Your task to perform on an android device: Search for Italian restaurants on Maps Image 0: 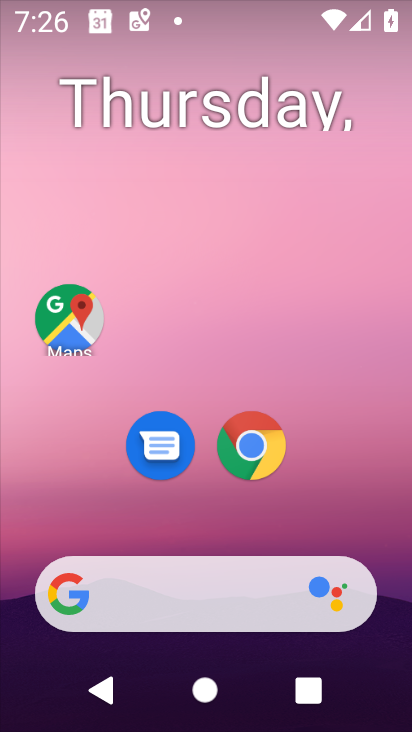
Step 0: drag from (379, 649) to (288, 85)
Your task to perform on an android device: Search for Italian restaurants on Maps Image 1: 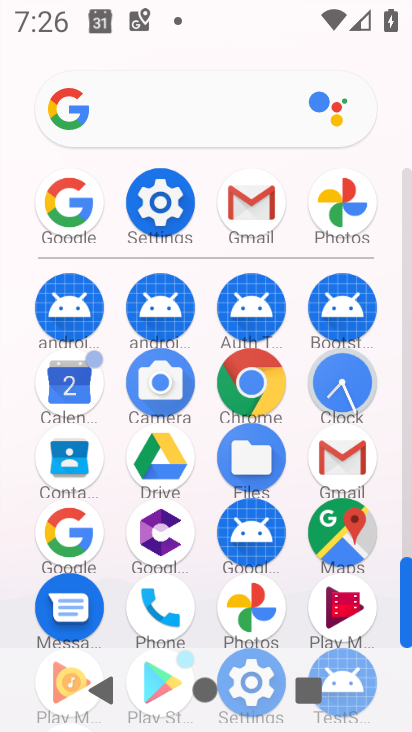
Step 1: click (349, 535)
Your task to perform on an android device: Search for Italian restaurants on Maps Image 2: 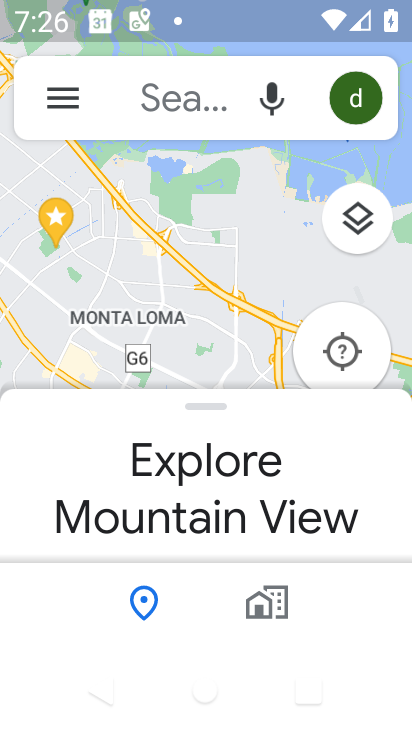
Step 2: click (155, 107)
Your task to perform on an android device: Search for Italian restaurants on Maps Image 3: 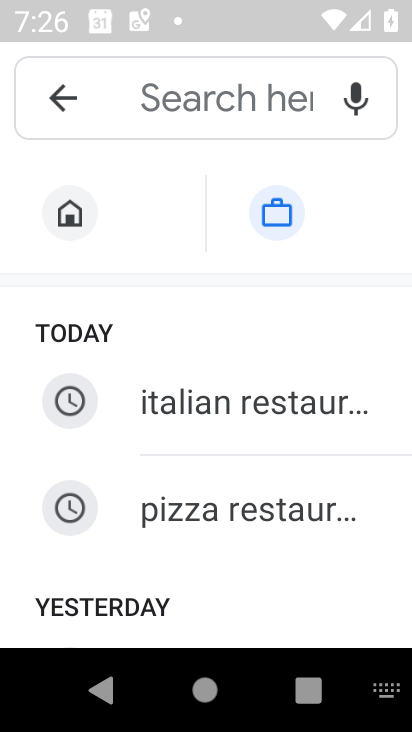
Step 3: click (213, 401)
Your task to perform on an android device: Search for Italian restaurants on Maps Image 4: 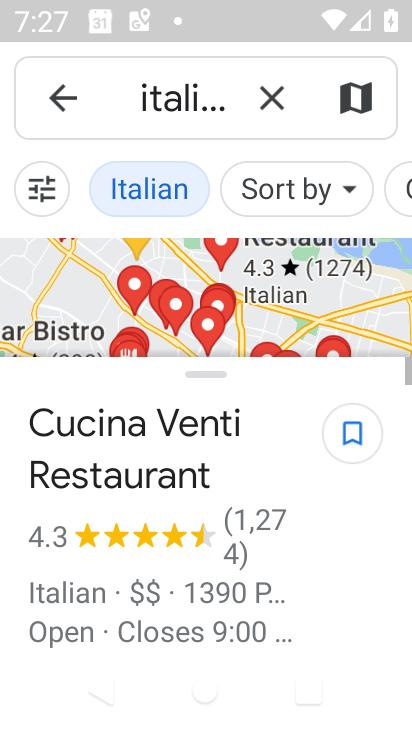
Step 4: task complete